Your task to perform on an android device: refresh tabs in the chrome app Image 0: 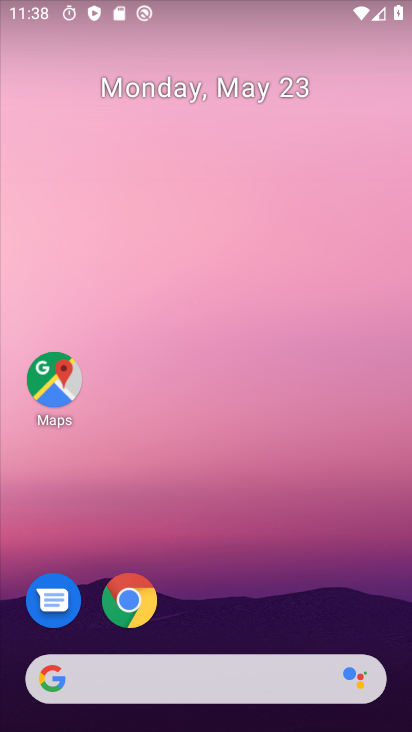
Step 0: click (138, 598)
Your task to perform on an android device: refresh tabs in the chrome app Image 1: 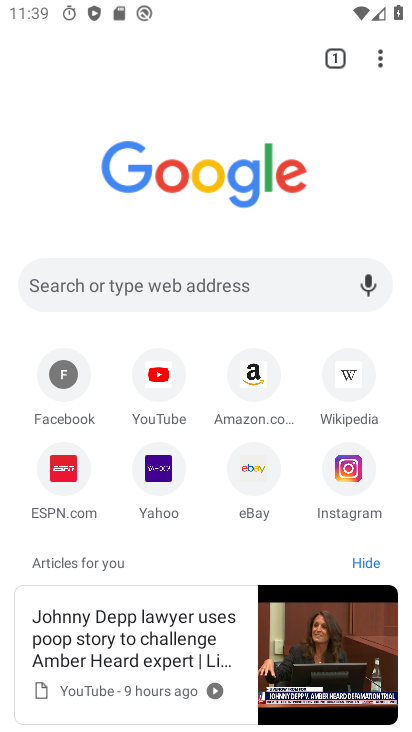
Step 1: click (381, 63)
Your task to perform on an android device: refresh tabs in the chrome app Image 2: 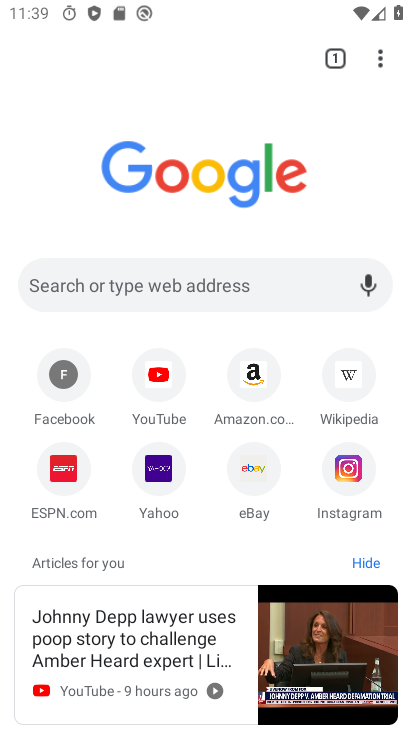
Step 2: task complete